Your task to perform on an android device: Open internet settings Image 0: 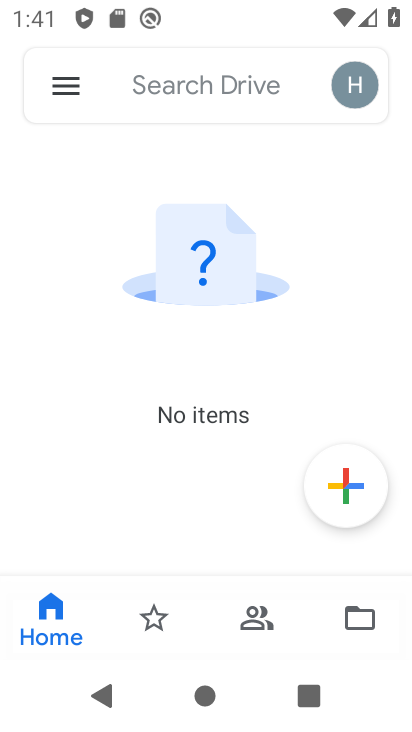
Step 0: press home button
Your task to perform on an android device: Open internet settings Image 1: 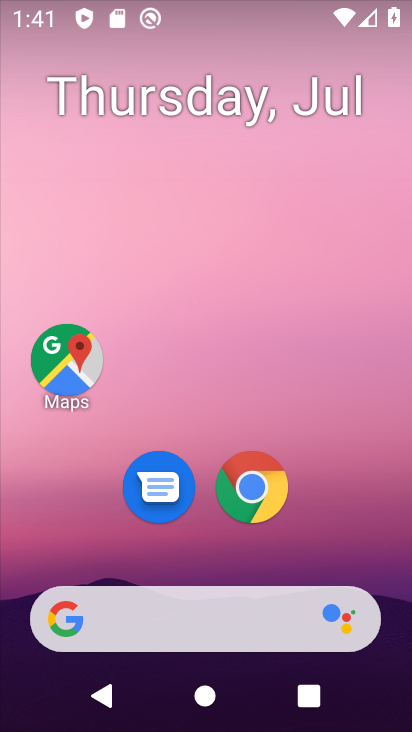
Step 1: drag from (352, 521) to (352, 107)
Your task to perform on an android device: Open internet settings Image 2: 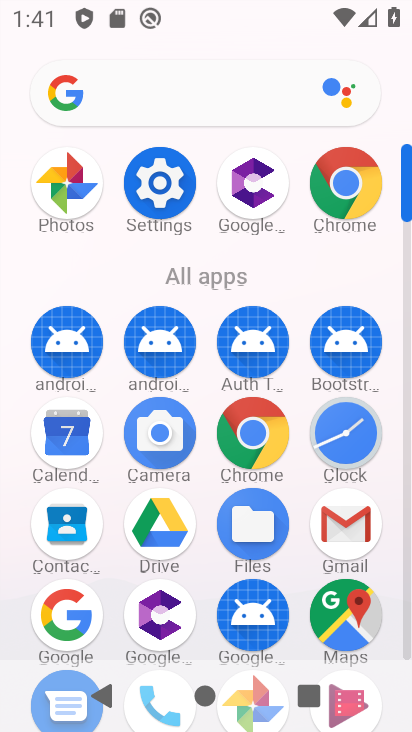
Step 2: click (171, 189)
Your task to perform on an android device: Open internet settings Image 3: 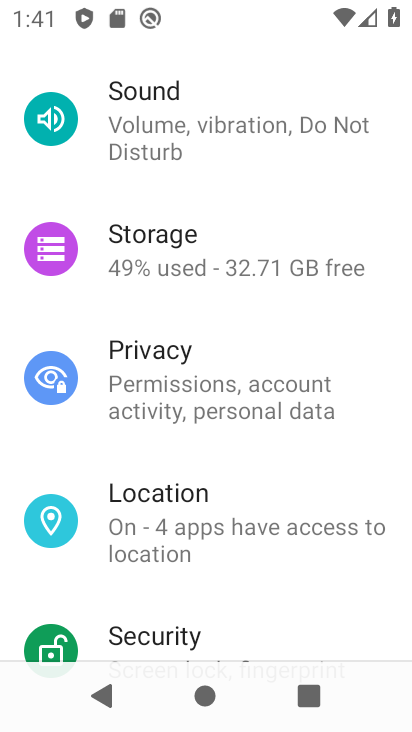
Step 3: drag from (326, 179) to (331, 292)
Your task to perform on an android device: Open internet settings Image 4: 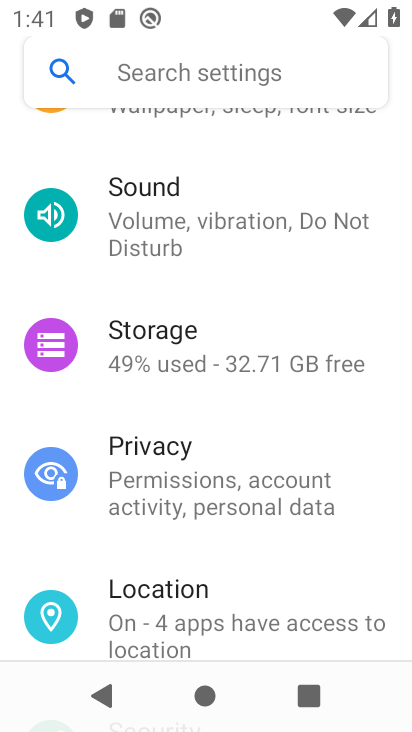
Step 4: drag from (357, 158) to (363, 286)
Your task to perform on an android device: Open internet settings Image 5: 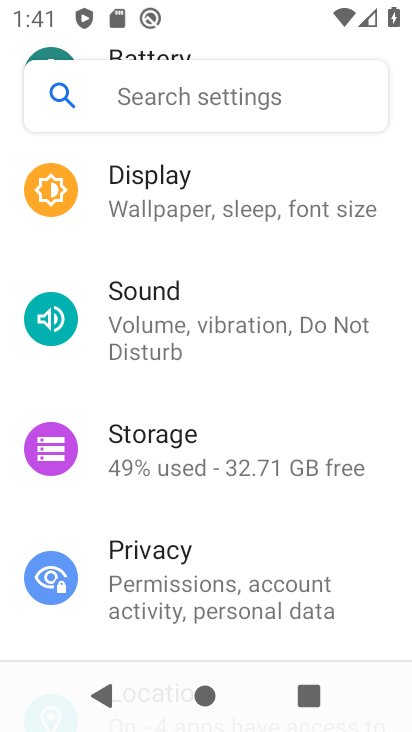
Step 5: drag from (374, 160) to (384, 288)
Your task to perform on an android device: Open internet settings Image 6: 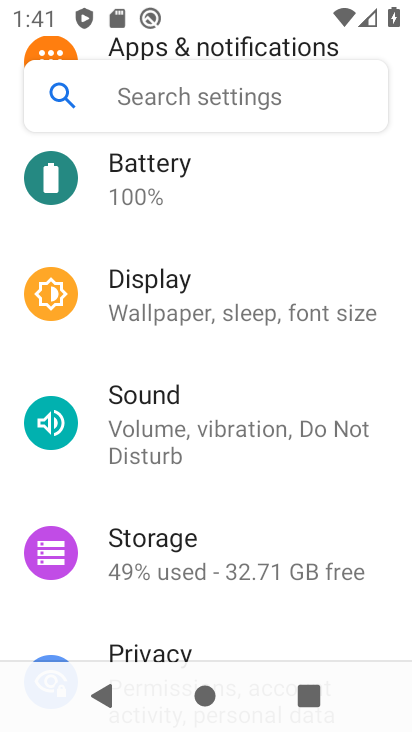
Step 6: drag from (369, 177) to (379, 292)
Your task to perform on an android device: Open internet settings Image 7: 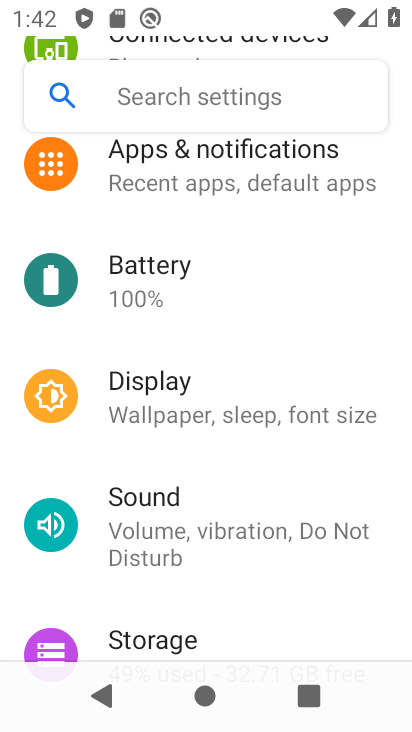
Step 7: drag from (381, 157) to (379, 344)
Your task to perform on an android device: Open internet settings Image 8: 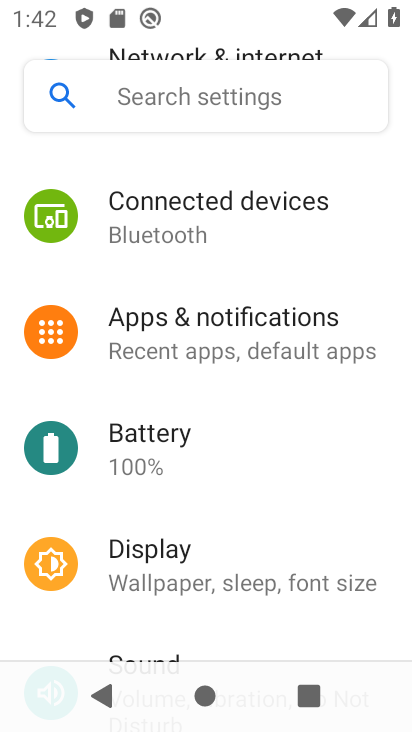
Step 8: drag from (369, 186) to (370, 382)
Your task to perform on an android device: Open internet settings Image 9: 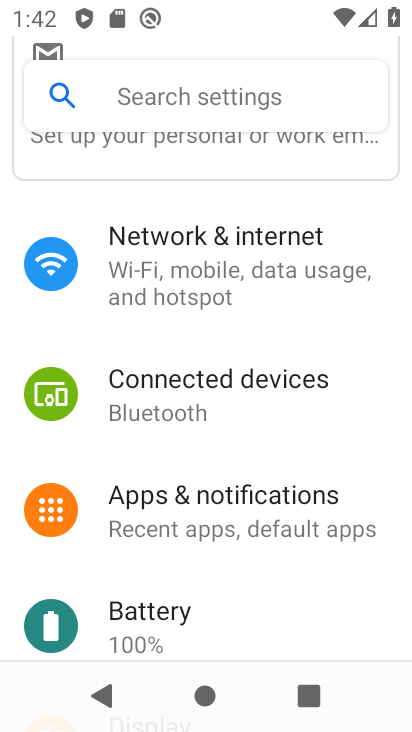
Step 9: drag from (362, 212) to (368, 391)
Your task to perform on an android device: Open internet settings Image 10: 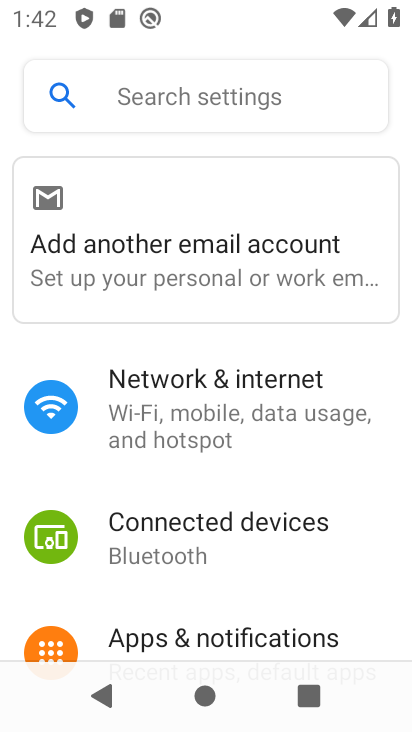
Step 10: click (282, 416)
Your task to perform on an android device: Open internet settings Image 11: 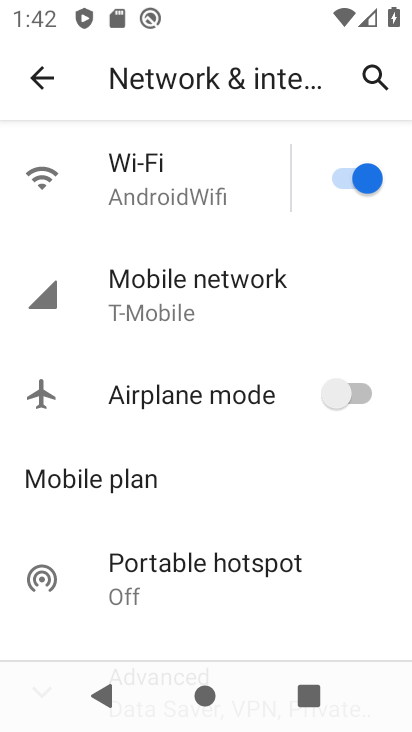
Step 11: task complete